Your task to perform on an android device: Open a new Chrome incognito tab Image 0: 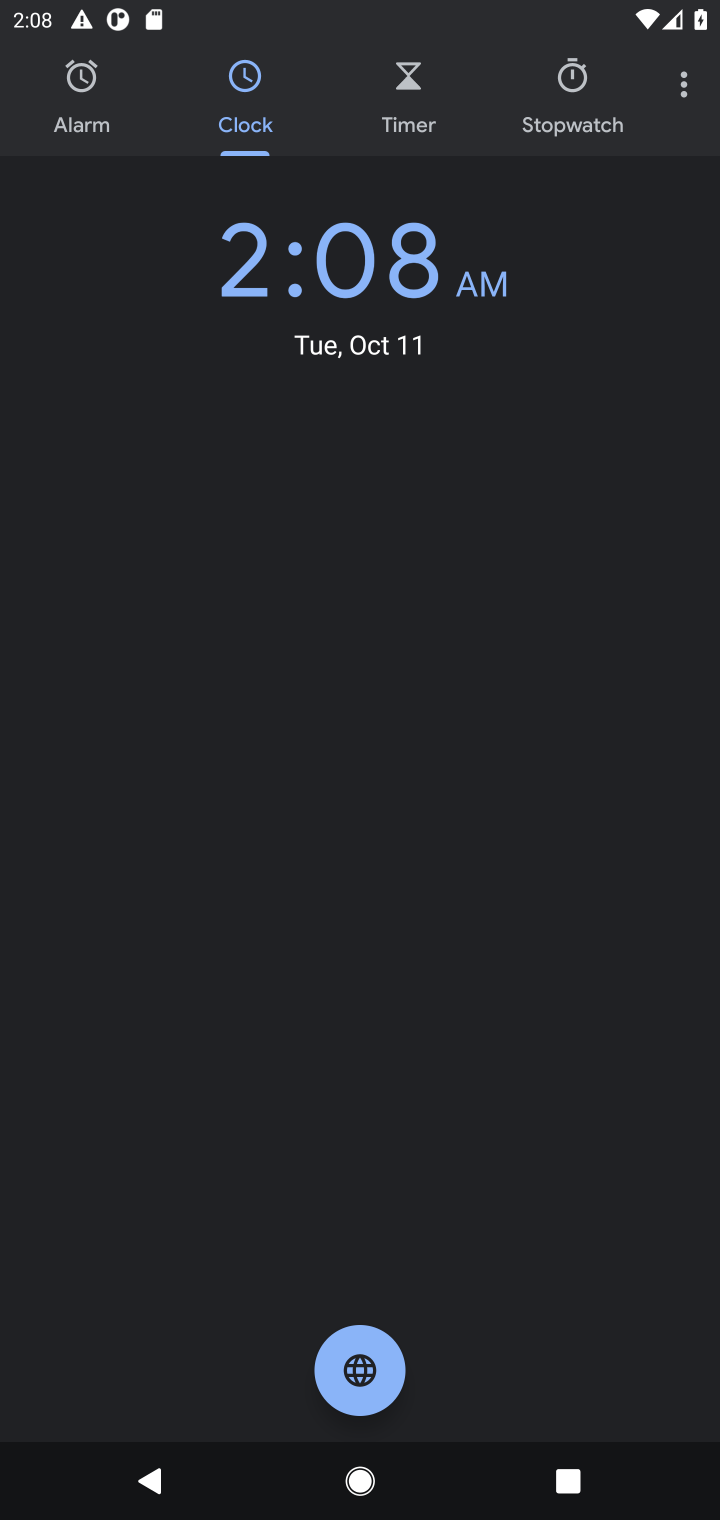
Step 0: press home button
Your task to perform on an android device: Open a new Chrome incognito tab Image 1: 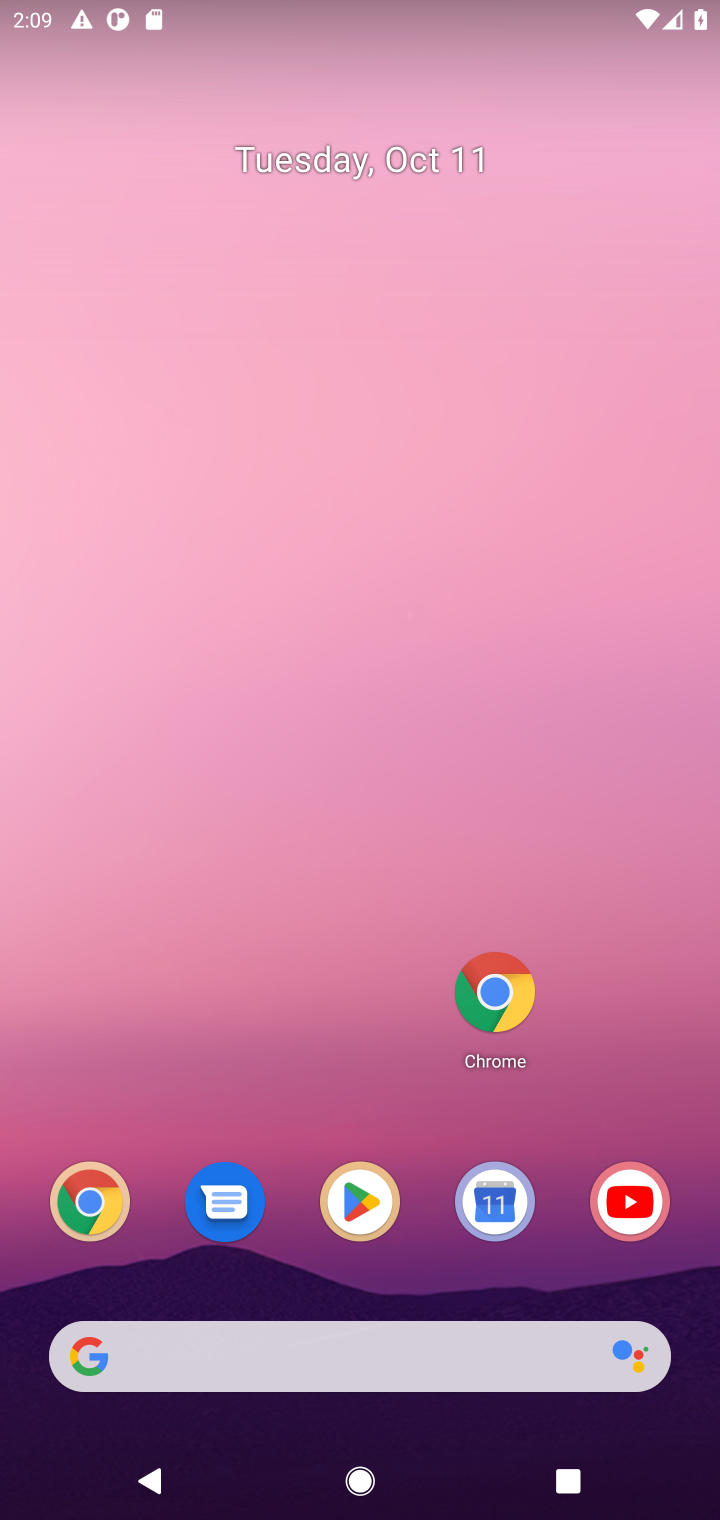
Step 1: click (512, 983)
Your task to perform on an android device: Open a new Chrome incognito tab Image 2: 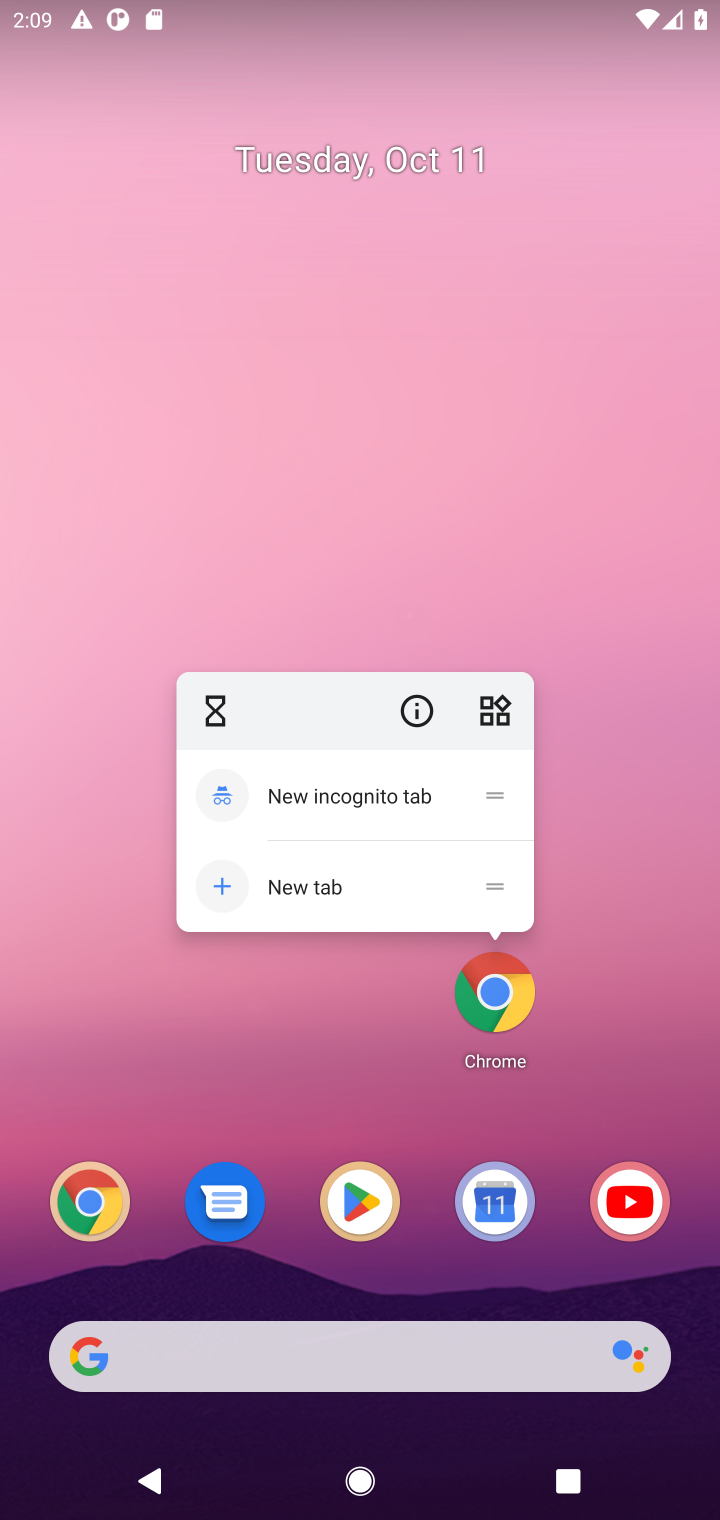
Step 2: click (512, 987)
Your task to perform on an android device: Open a new Chrome incognito tab Image 3: 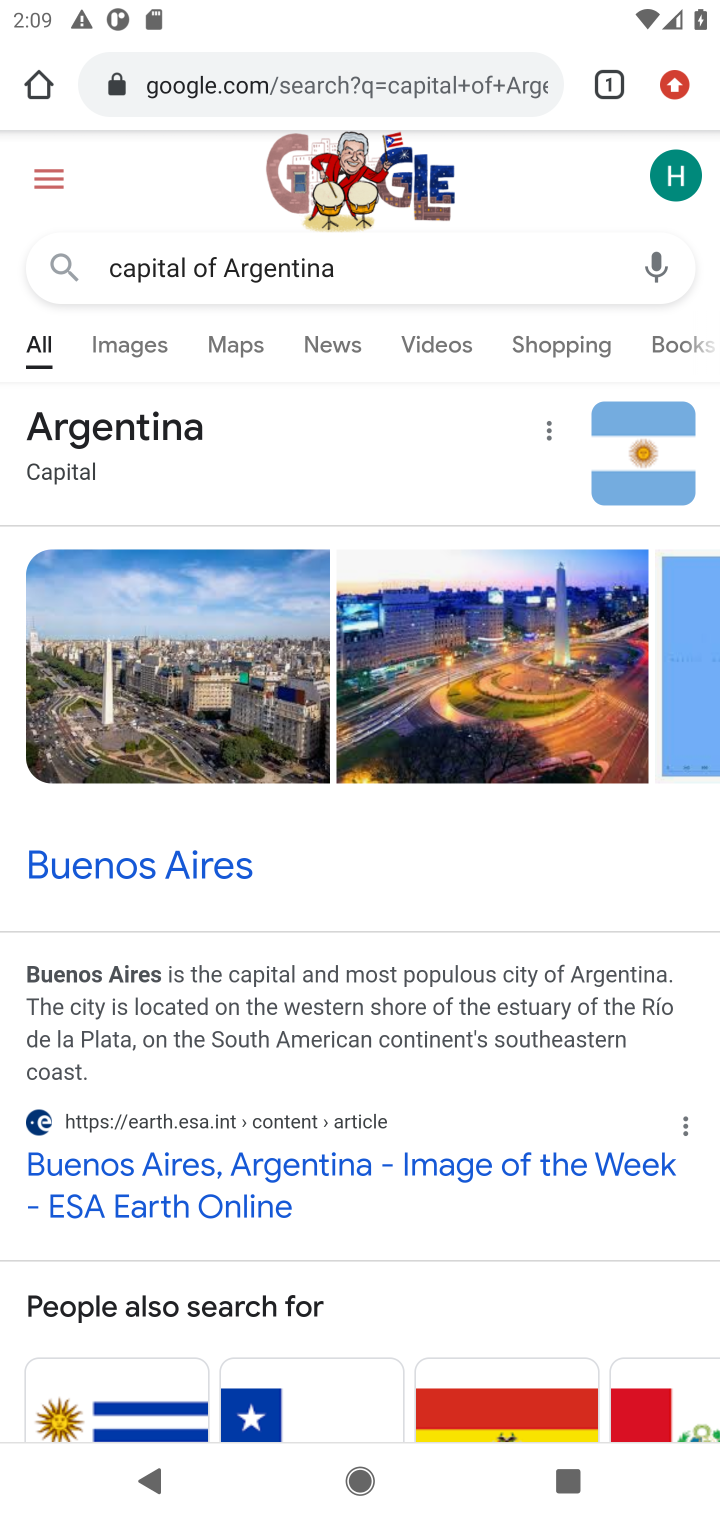
Step 3: task complete